Your task to perform on an android device: Open battery settings Image 0: 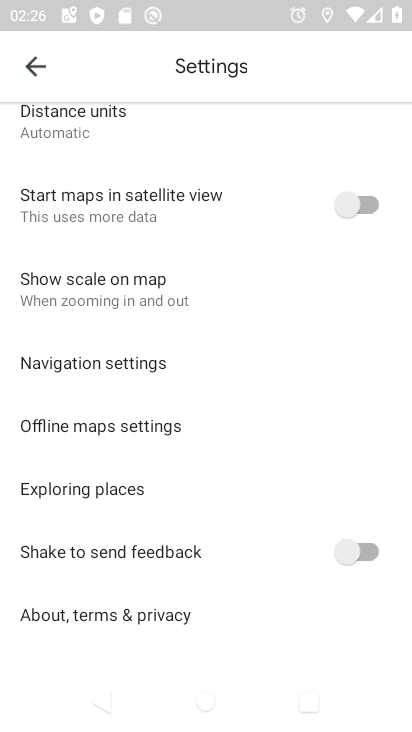
Step 0: press home button
Your task to perform on an android device: Open battery settings Image 1: 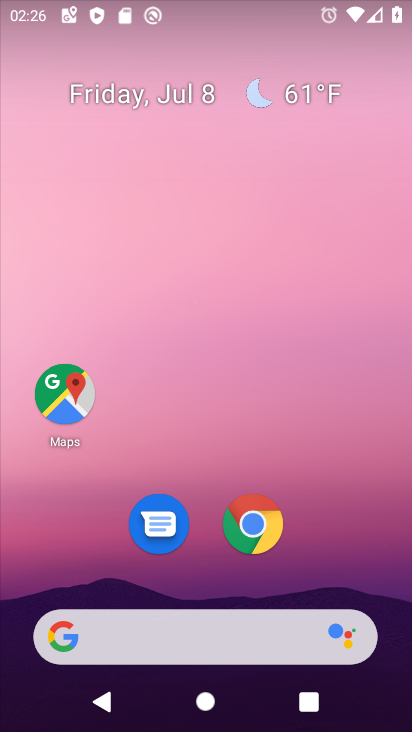
Step 1: drag from (333, 470) to (260, 48)
Your task to perform on an android device: Open battery settings Image 2: 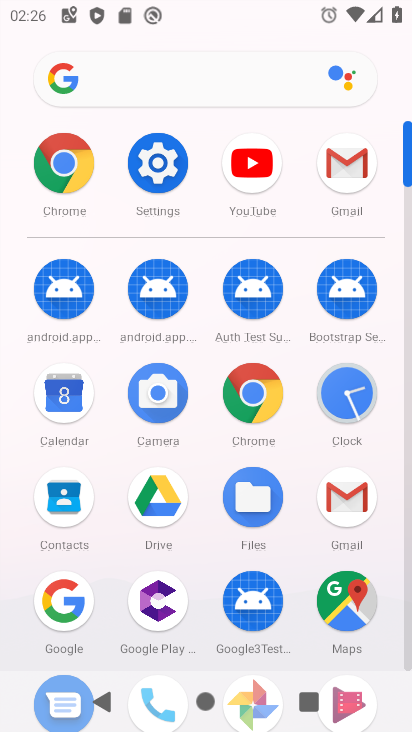
Step 2: click (172, 146)
Your task to perform on an android device: Open battery settings Image 3: 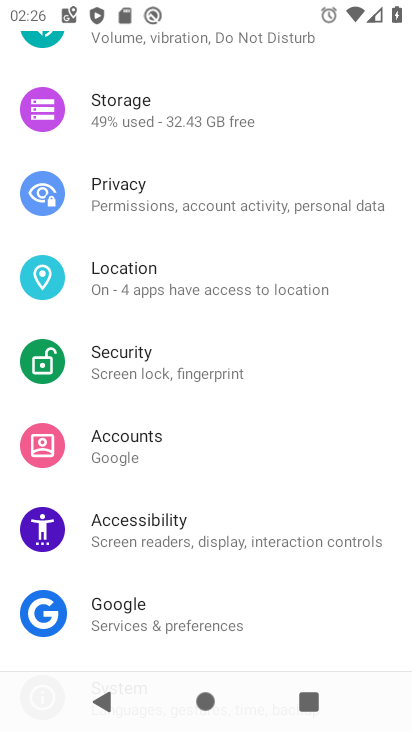
Step 3: drag from (200, 243) to (250, 537)
Your task to perform on an android device: Open battery settings Image 4: 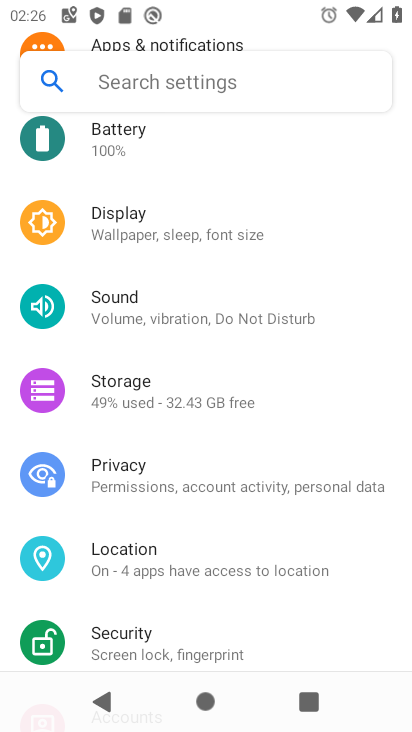
Step 4: click (144, 146)
Your task to perform on an android device: Open battery settings Image 5: 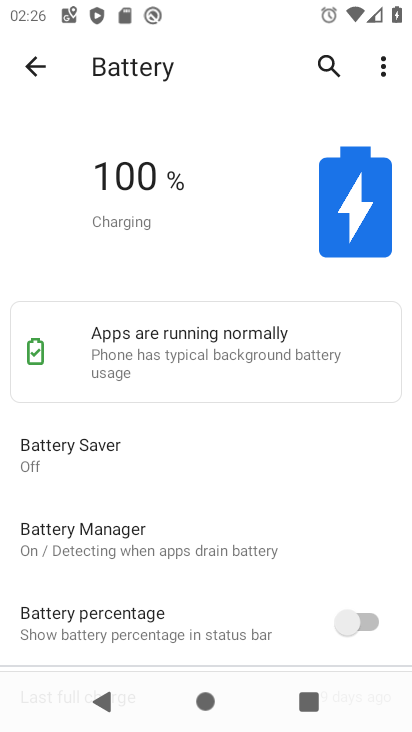
Step 5: task complete